Your task to perform on an android device: turn off sleep mode Image 0: 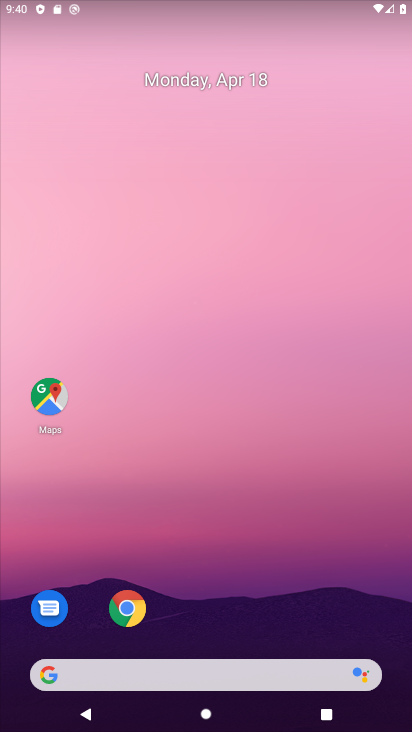
Step 0: drag from (228, 501) to (237, 49)
Your task to perform on an android device: turn off sleep mode Image 1: 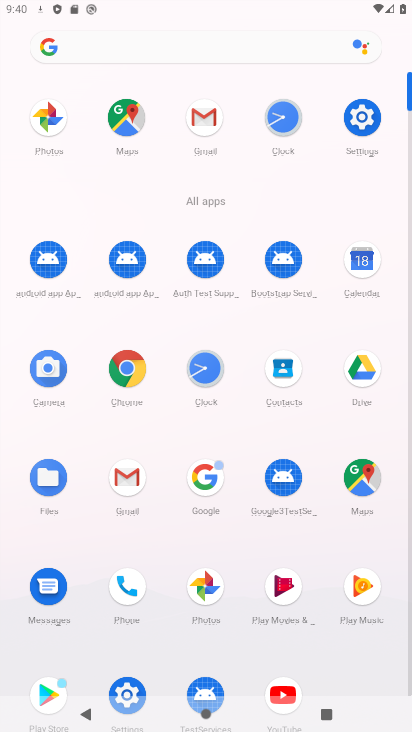
Step 1: click (368, 123)
Your task to perform on an android device: turn off sleep mode Image 2: 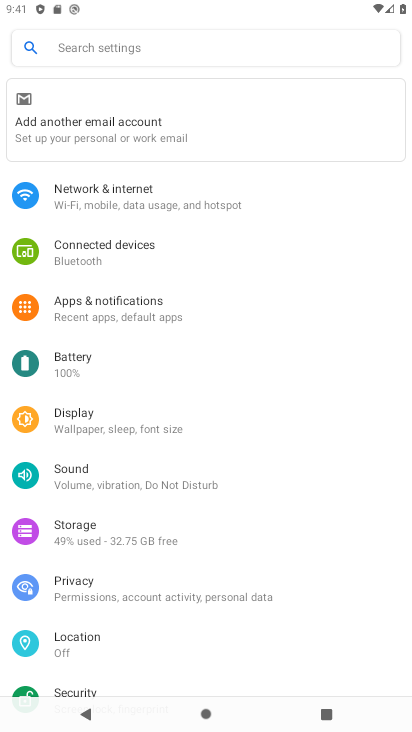
Step 2: click (151, 424)
Your task to perform on an android device: turn off sleep mode Image 3: 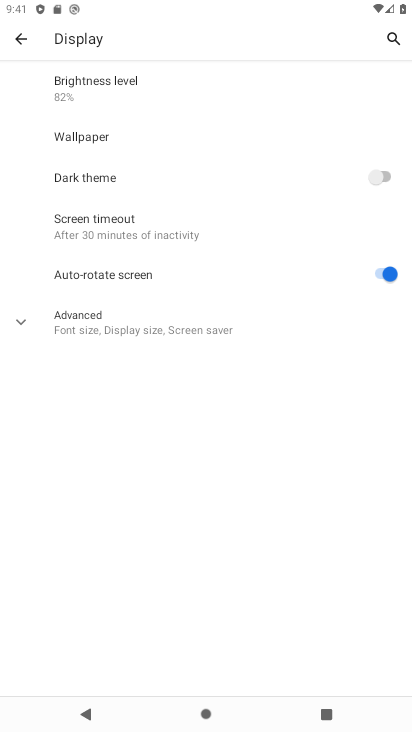
Step 3: drag from (274, 297) to (274, 128)
Your task to perform on an android device: turn off sleep mode Image 4: 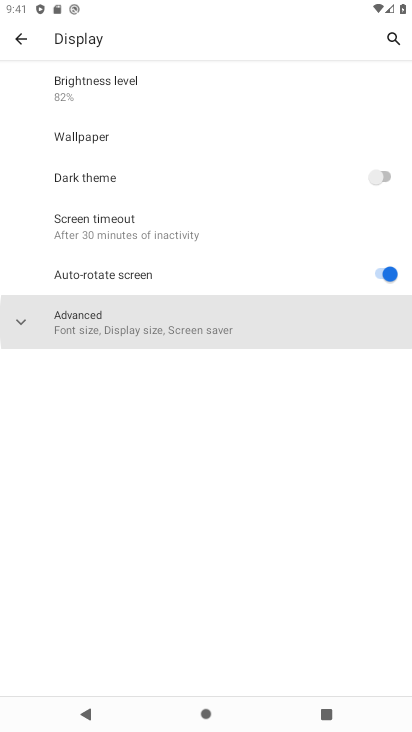
Step 4: drag from (278, 399) to (274, 480)
Your task to perform on an android device: turn off sleep mode Image 5: 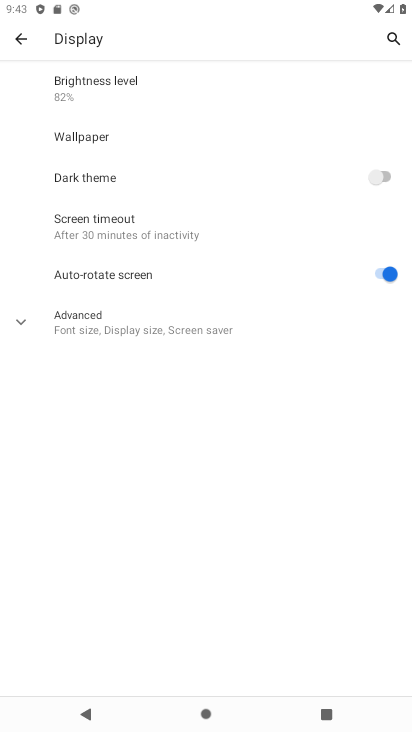
Step 5: click (241, 372)
Your task to perform on an android device: turn off sleep mode Image 6: 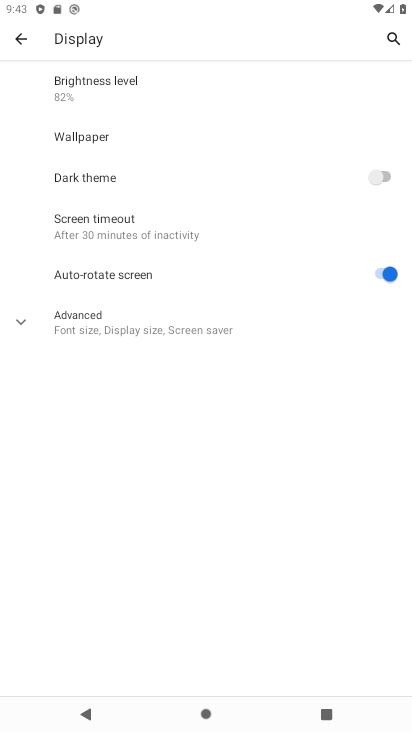
Step 6: click (241, 372)
Your task to perform on an android device: turn off sleep mode Image 7: 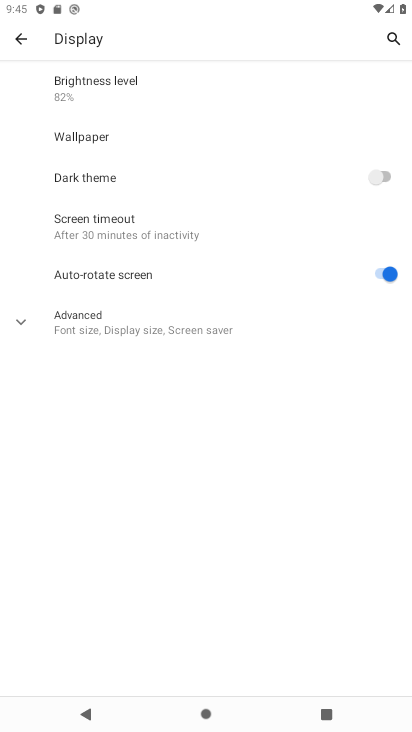
Step 7: task complete